Your task to perform on an android device: Check the weather Image 0: 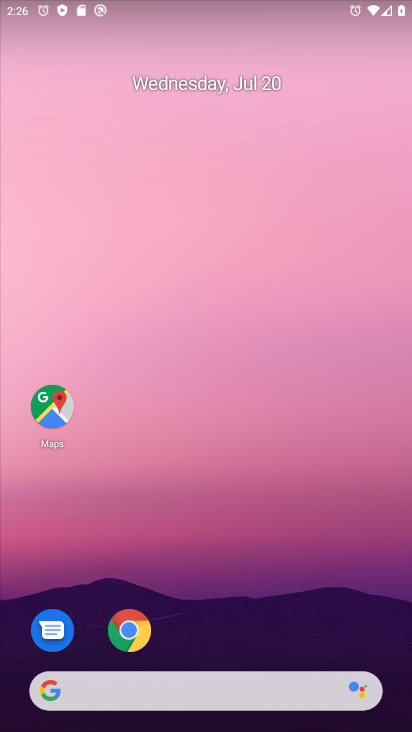
Step 0: click (208, 698)
Your task to perform on an android device: Check the weather Image 1: 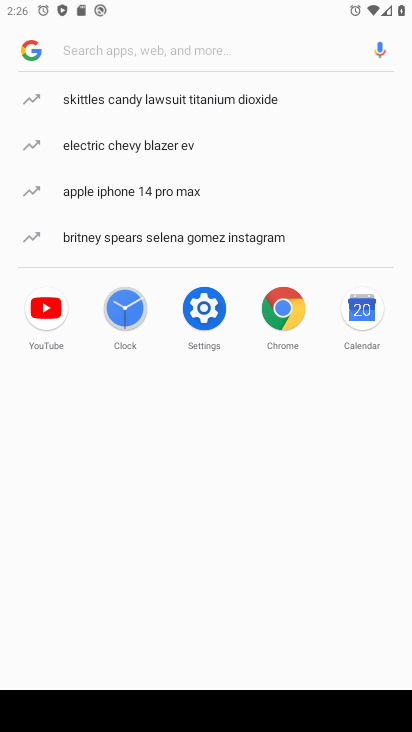
Step 1: click (221, 36)
Your task to perform on an android device: Check the weather Image 2: 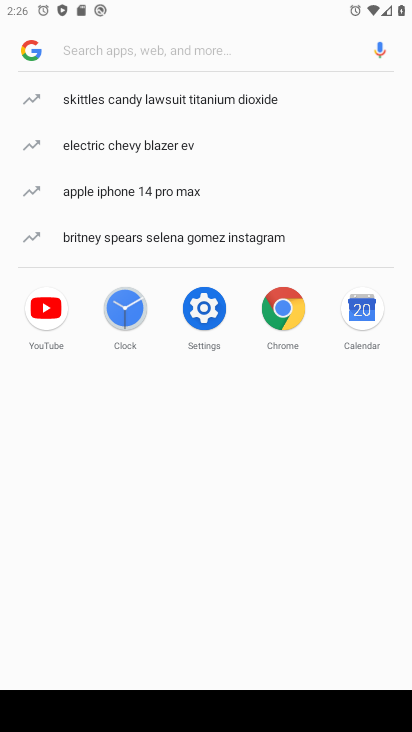
Step 2: type "weather"
Your task to perform on an android device: Check the weather Image 3: 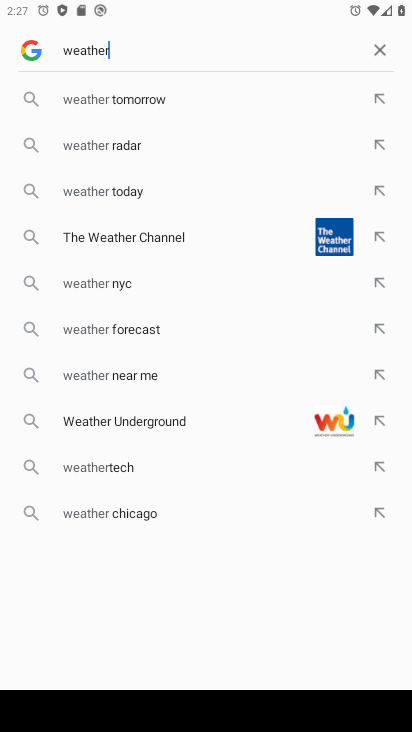
Step 3: click (105, 39)
Your task to perform on an android device: Check the weather Image 4: 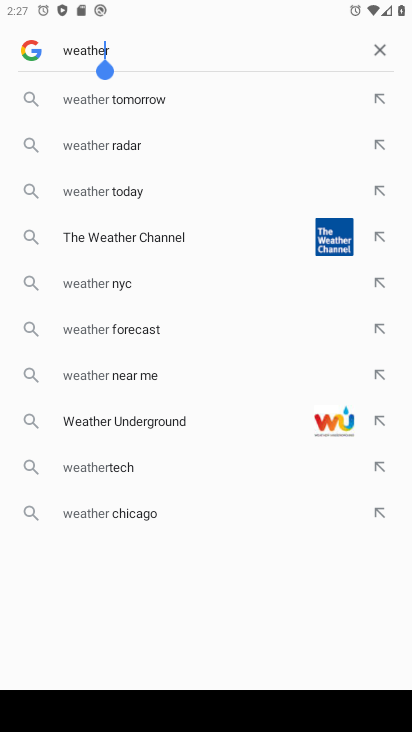
Step 4: click (86, 104)
Your task to perform on an android device: Check the weather Image 5: 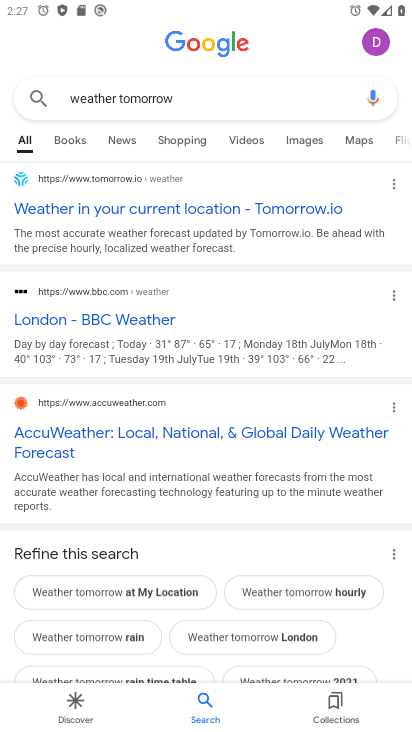
Step 5: task complete